Your task to perform on an android device: Go to Google Image 0: 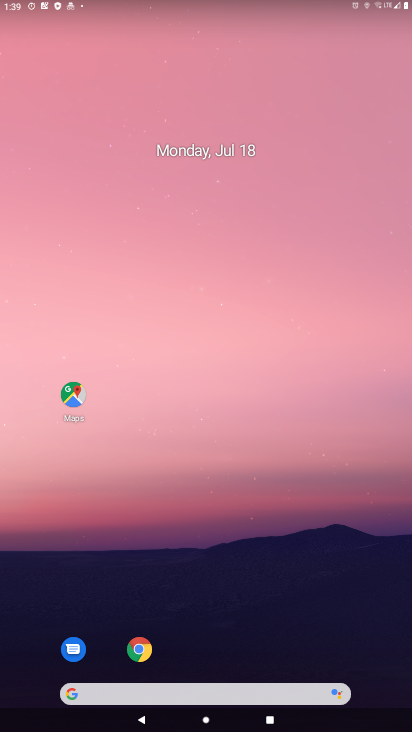
Step 0: drag from (209, 661) to (191, 22)
Your task to perform on an android device: Go to Google Image 1: 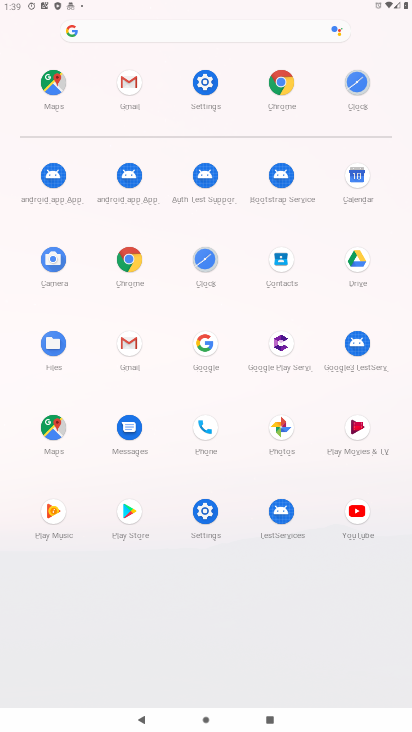
Step 1: click (201, 343)
Your task to perform on an android device: Go to Google Image 2: 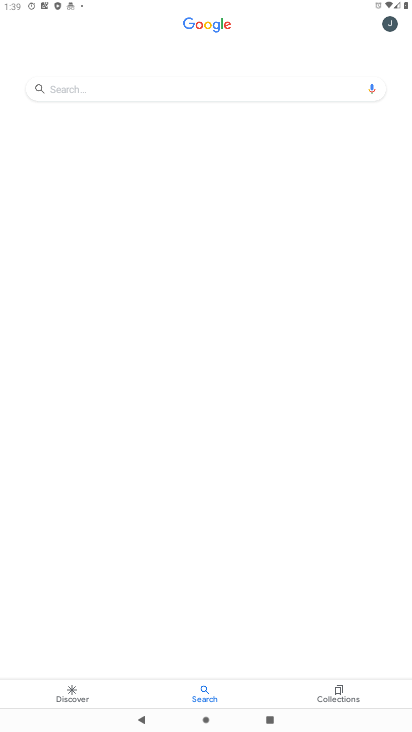
Step 2: task complete